Your task to perform on an android device: Go to settings Image 0: 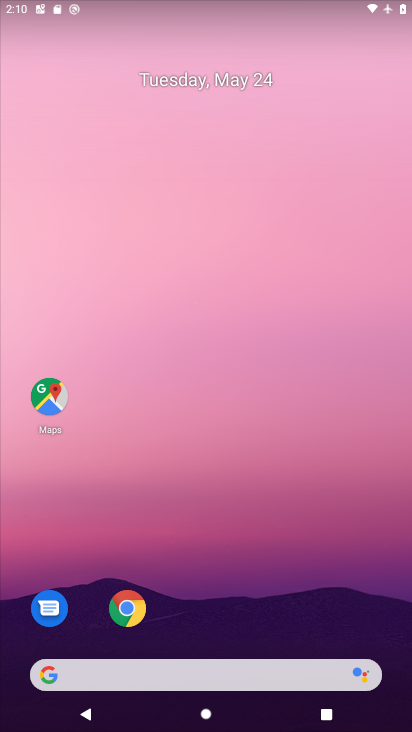
Step 0: drag from (273, 586) to (291, 127)
Your task to perform on an android device: Go to settings Image 1: 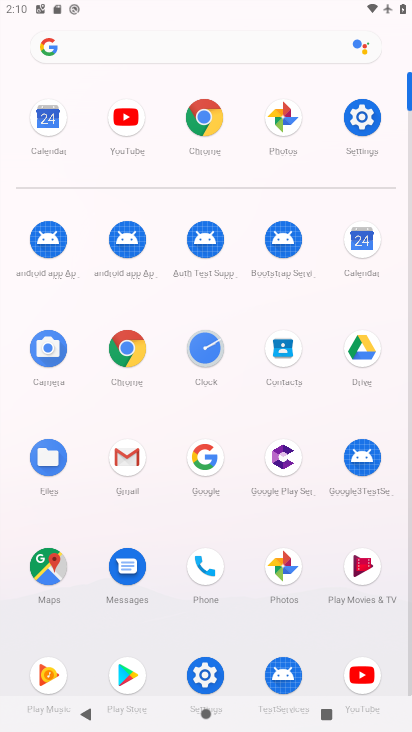
Step 1: click (353, 134)
Your task to perform on an android device: Go to settings Image 2: 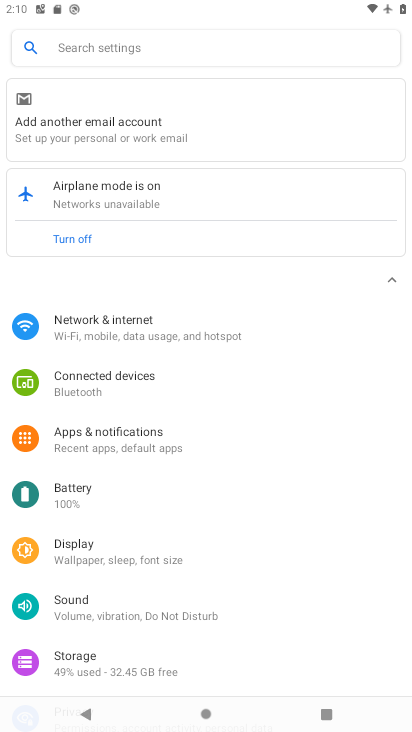
Step 2: click (251, 309)
Your task to perform on an android device: Go to settings Image 3: 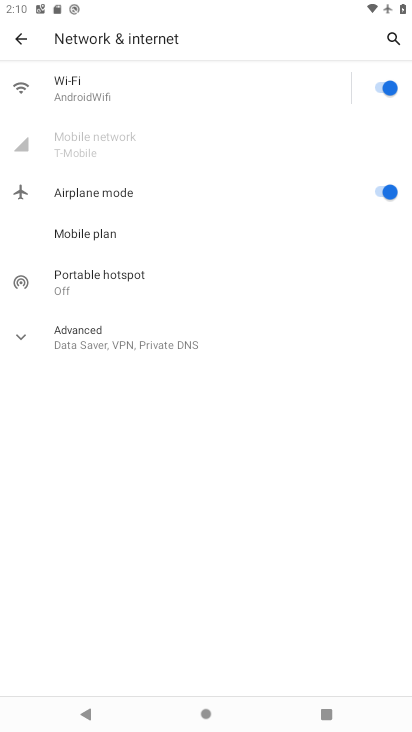
Step 3: click (18, 49)
Your task to perform on an android device: Go to settings Image 4: 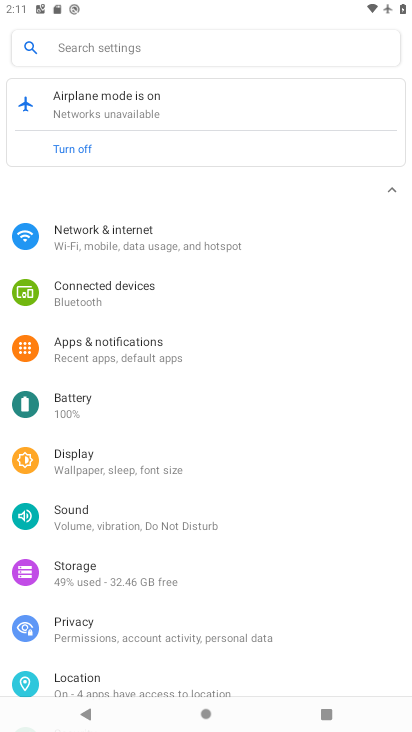
Step 4: task complete